Your task to perform on an android device: see sites visited before in the chrome app Image 0: 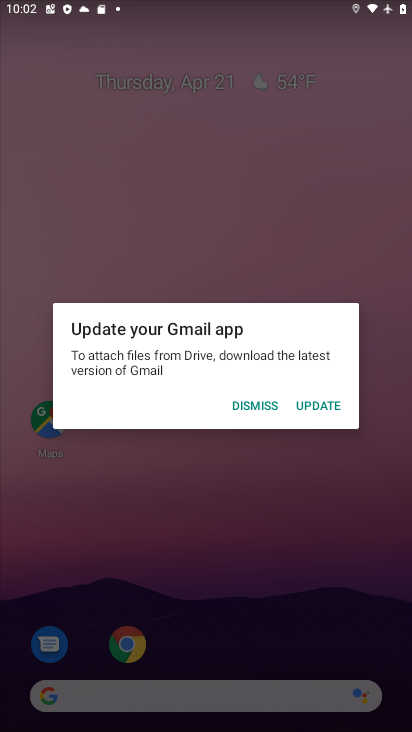
Step 0: press home button
Your task to perform on an android device: see sites visited before in the chrome app Image 1: 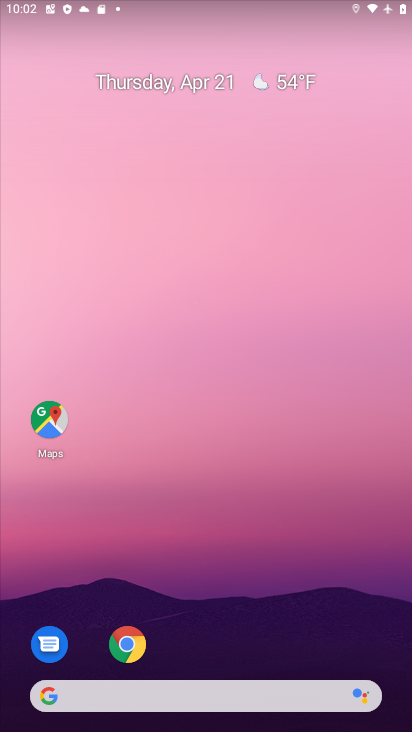
Step 1: click (129, 659)
Your task to perform on an android device: see sites visited before in the chrome app Image 2: 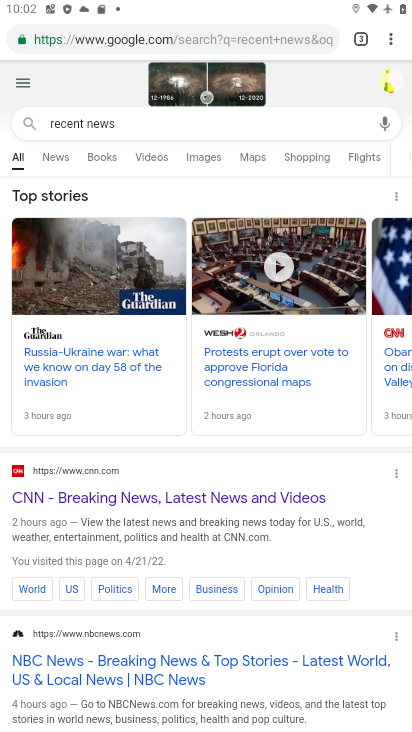
Step 2: drag from (387, 40) to (249, 233)
Your task to perform on an android device: see sites visited before in the chrome app Image 3: 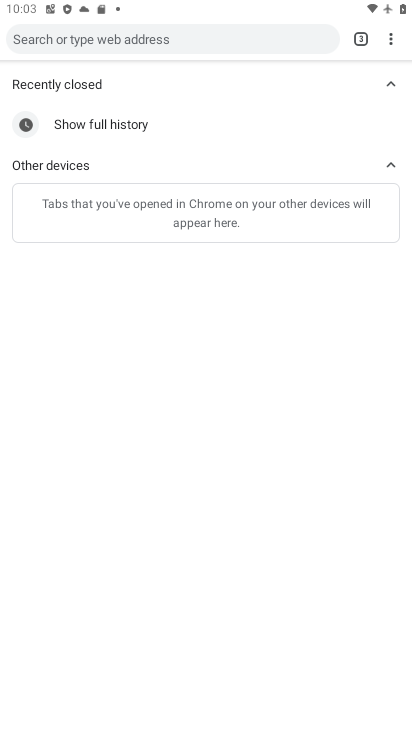
Step 3: click (94, 122)
Your task to perform on an android device: see sites visited before in the chrome app Image 4: 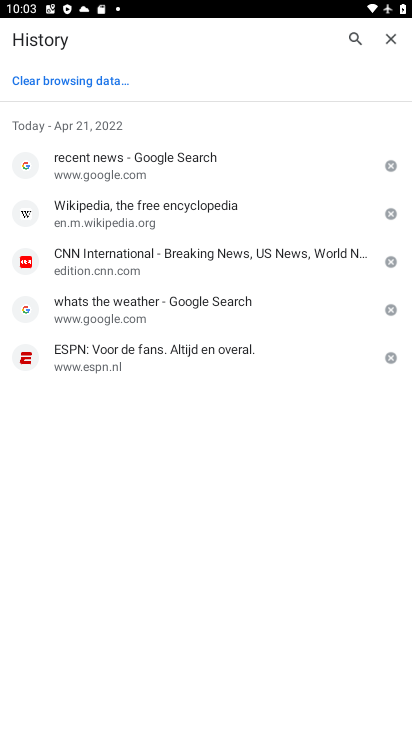
Step 4: task complete